Your task to perform on an android device: Go to Android settings Image 0: 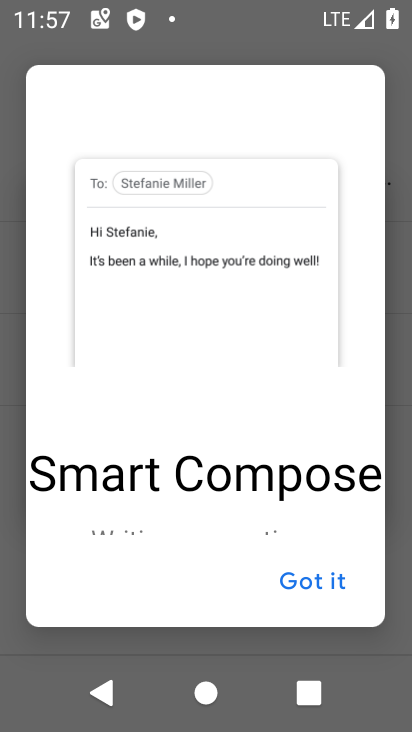
Step 0: press back button
Your task to perform on an android device: Go to Android settings Image 1: 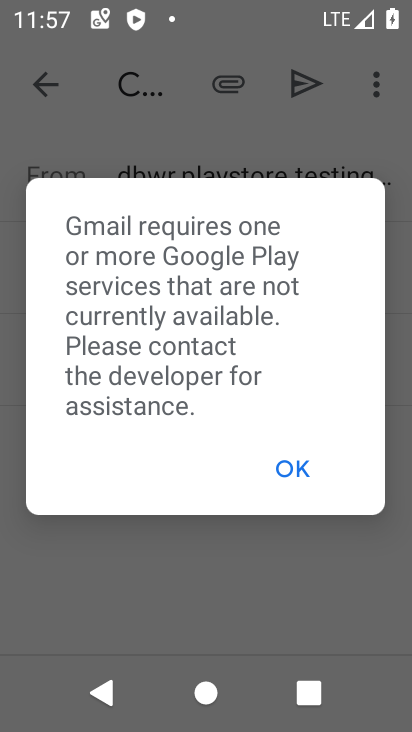
Step 1: press back button
Your task to perform on an android device: Go to Android settings Image 2: 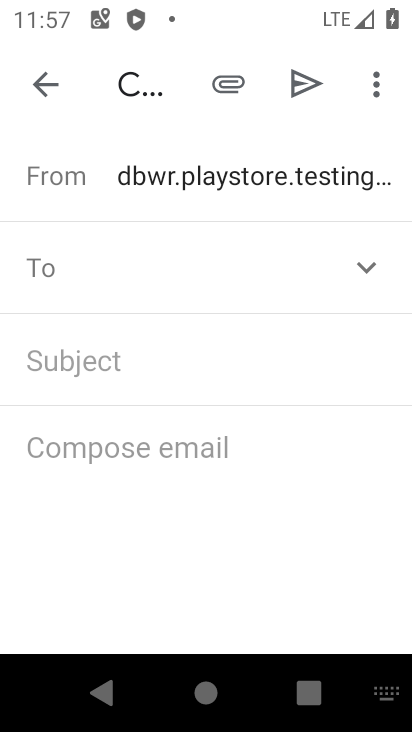
Step 2: press home button
Your task to perform on an android device: Go to Android settings Image 3: 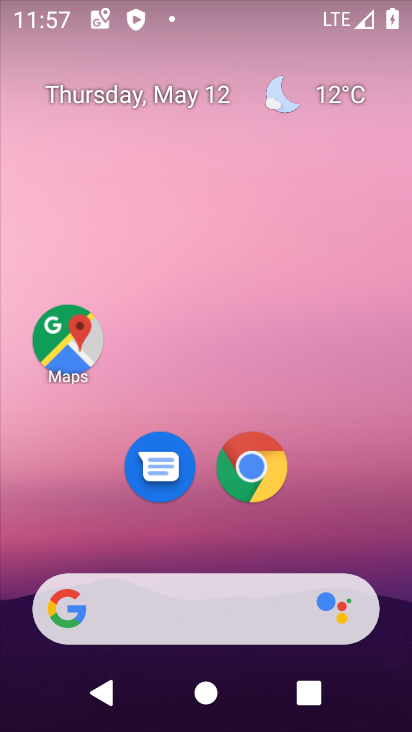
Step 3: drag from (328, 480) to (281, 64)
Your task to perform on an android device: Go to Android settings Image 4: 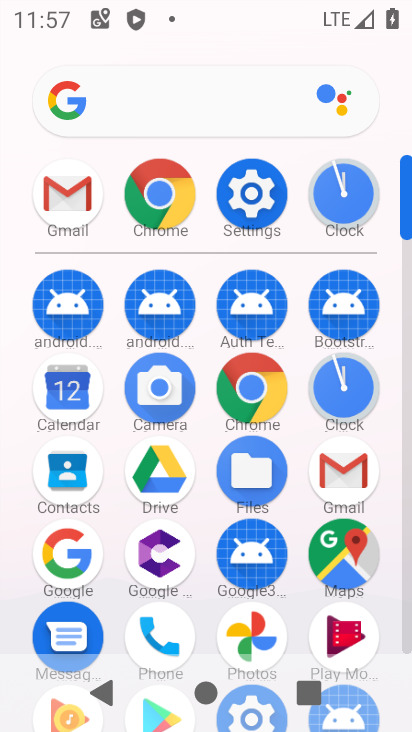
Step 4: drag from (17, 547) to (2, 223)
Your task to perform on an android device: Go to Android settings Image 5: 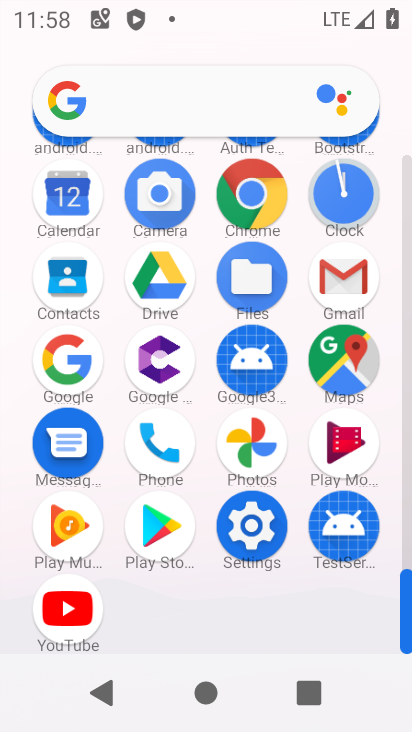
Step 5: click (243, 527)
Your task to perform on an android device: Go to Android settings Image 6: 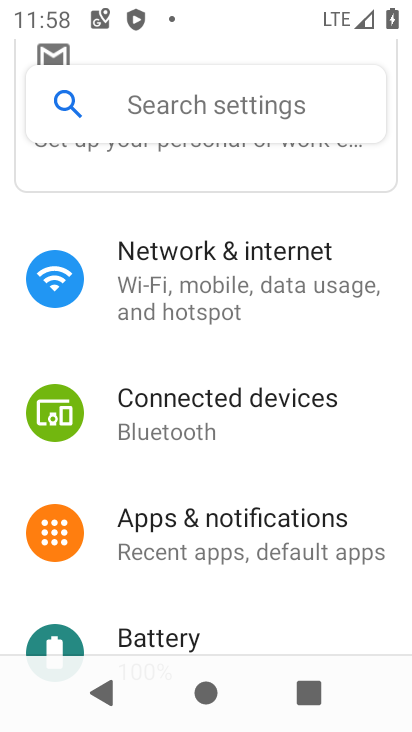
Step 6: task complete